Your task to perform on an android device: open wifi settings Image 0: 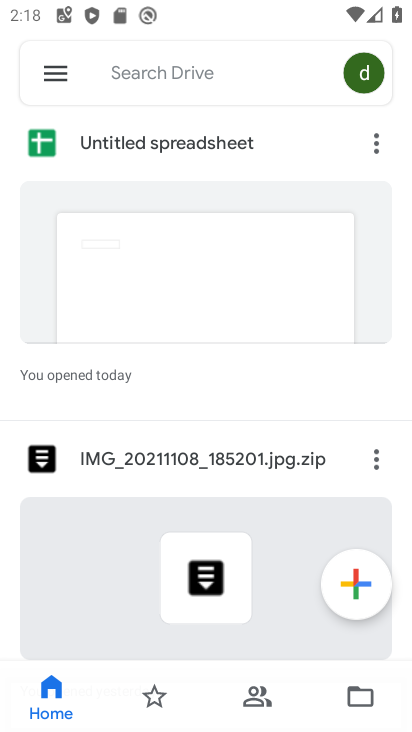
Step 0: press home button
Your task to perform on an android device: open wifi settings Image 1: 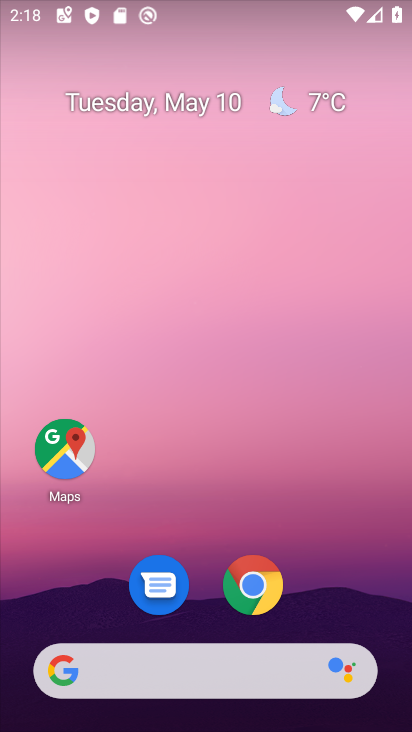
Step 1: drag from (218, 480) to (255, 46)
Your task to perform on an android device: open wifi settings Image 2: 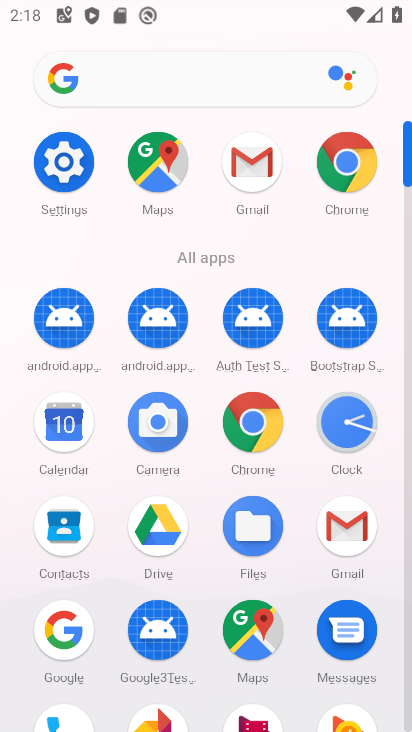
Step 2: click (64, 160)
Your task to perform on an android device: open wifi settings Image 3: 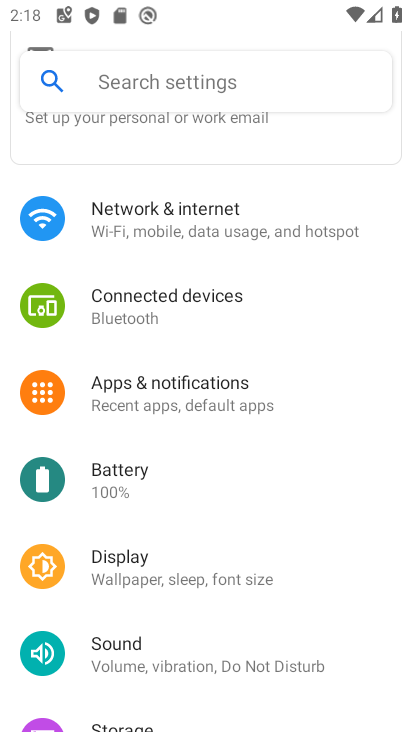
Step 3: click (235, 223)
Your task to perform on an android device: open wifi settings Image 4: 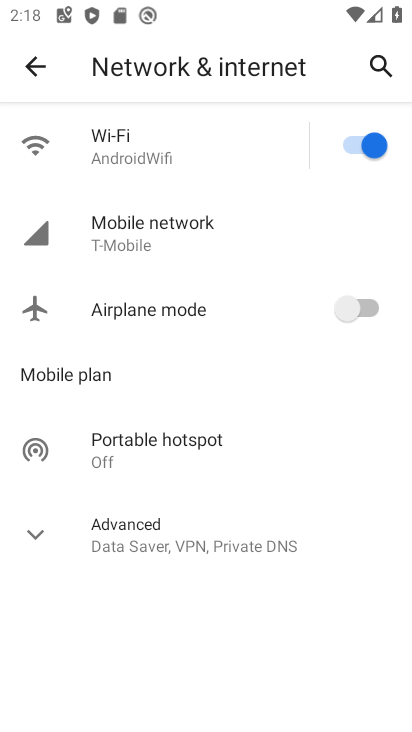
Step 4: click (145, 127)
Your task to perform on an android device: open wifi settings Image 5: 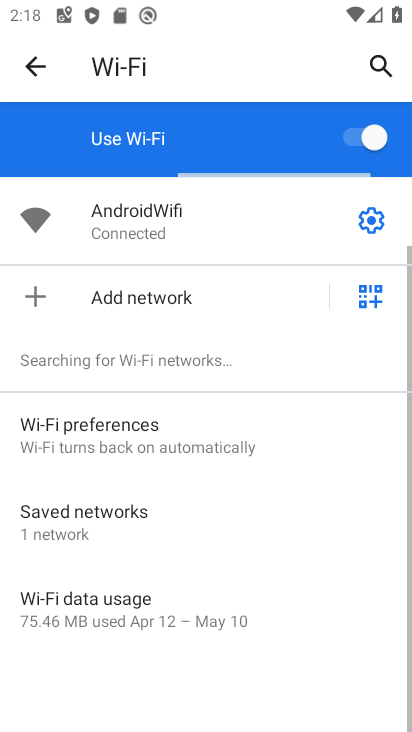
Step 5: task complete